Your task to perform on an android device: open app "Gmail" (install if not already installed) and enter user name: "undecidable@inbox.com" and password: "discouraging" Image 0: 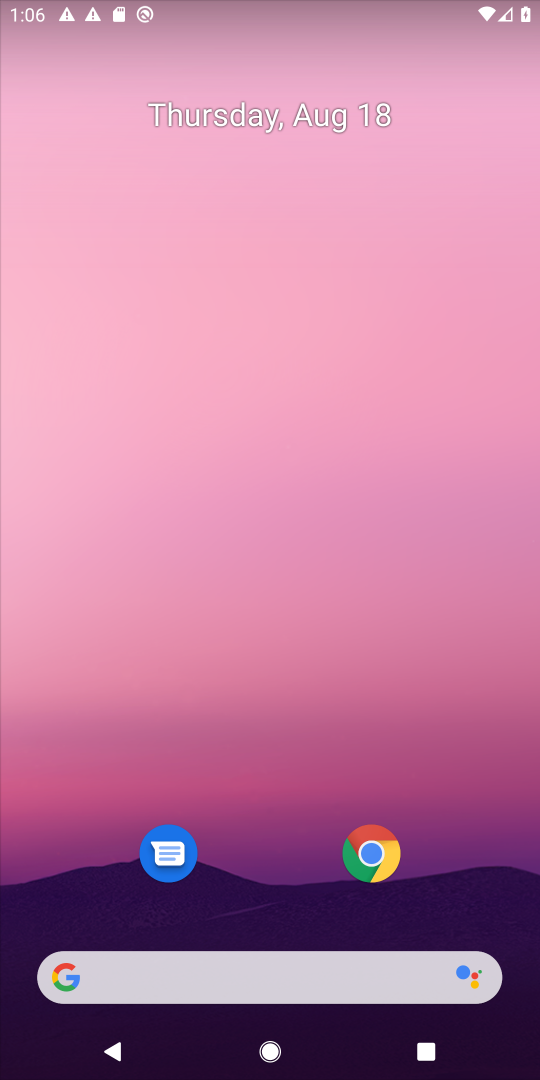
Step 0: drag from (261, 901) to (431, 135)
Your task to perform on an android device: open app "Gmail" (install if not already installed) and enter user name: "undecidable@inbox.com" and password: "discouraging" Image 1: 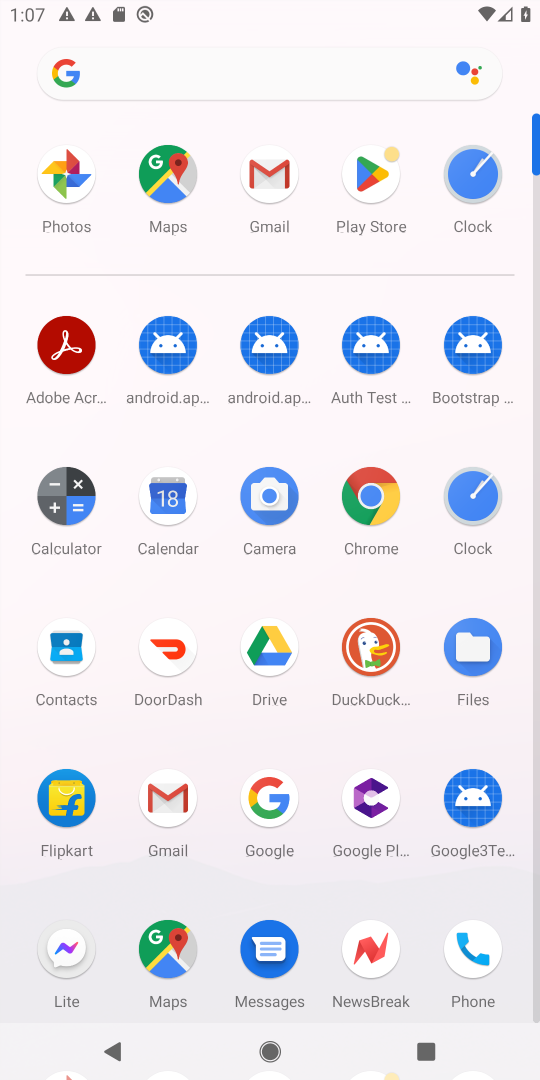
Step 1: click (153, 834)
Your task to perform on an android device: open app "Gmail" (install if not already installed) and enter user name: "undecidable@inbox.com" and password: "discouraging" Image 2: 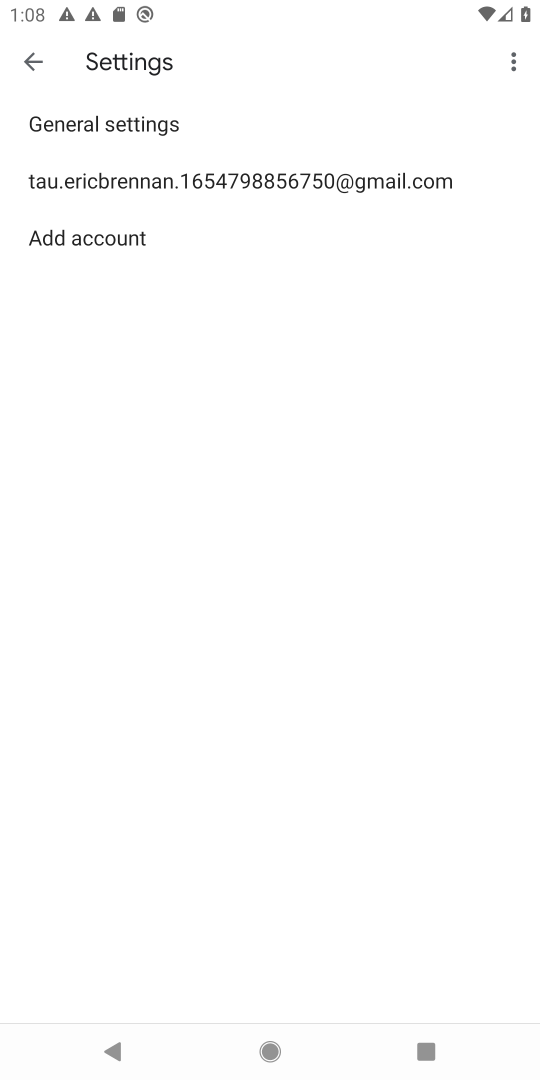
Step 2: click (33, 65)
Your task to perform on an android device: open app "Gmail" (install if not already installed) and enter user name: "undecidable@inbox.com" and password: "discouraging" Image 3: 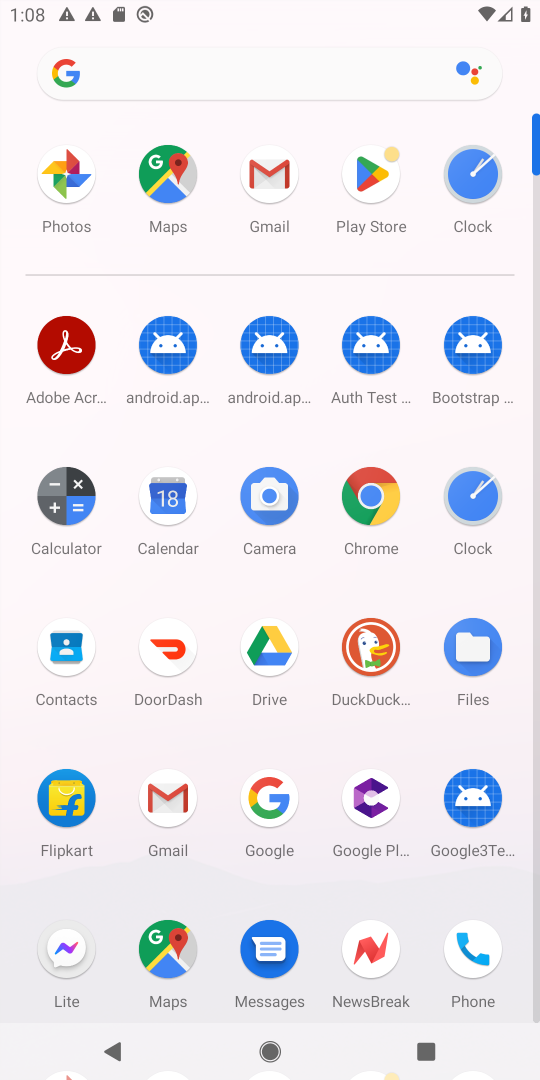
Step 3: click (379, 199)
Your task to perform on an android device: open app "Gmail" (install if not already installed) and enter user name: "undecidable@inbox.com" and password: "discouraging" Image 4: 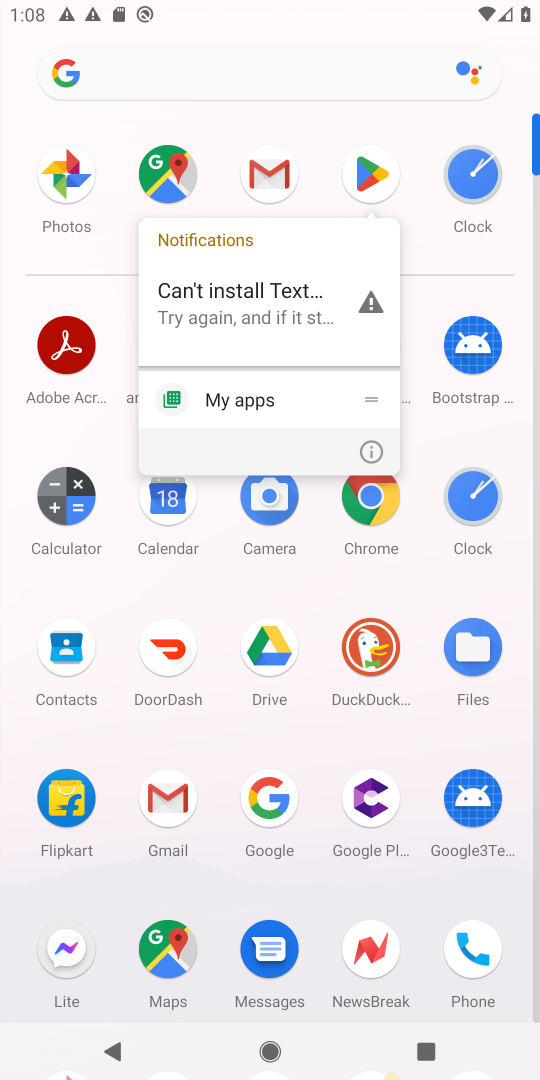
Step 4: click (376, 162)
Your task to perform on an android device: open app "Gmail" (install if not already installed) and enter user name: "undecidable@inbox.com" and password: "discouraging" Image 5: 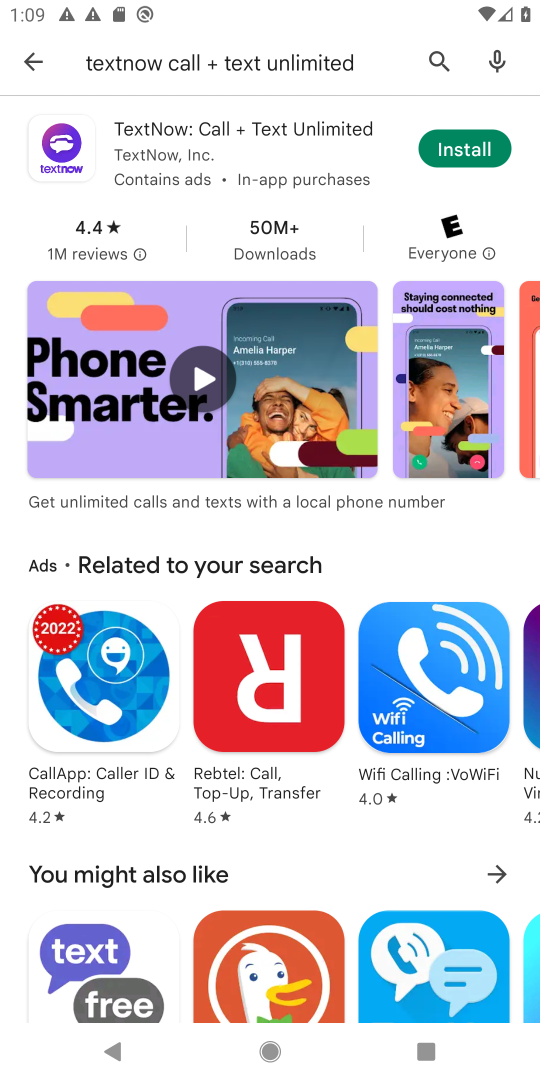
Step 5: press home button
Your task to perform on an android device: open app "Gmail" (install if not already installed) and enter user name: "undecidable@inbox.com" and password: "discouraging" Image 6: 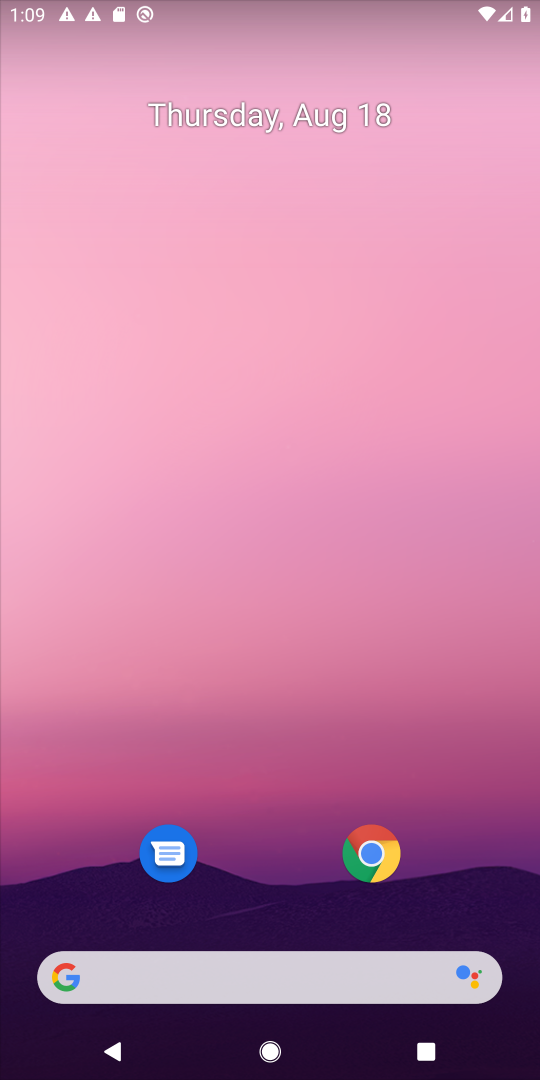
Step 6: drag from (316, 871) to (412, 2)
Your task to perform on an android device: open app "Gmail" (install if not already installed) and enter user name: "undecidable@inbox.com" and password: "discouraging" Image 7: 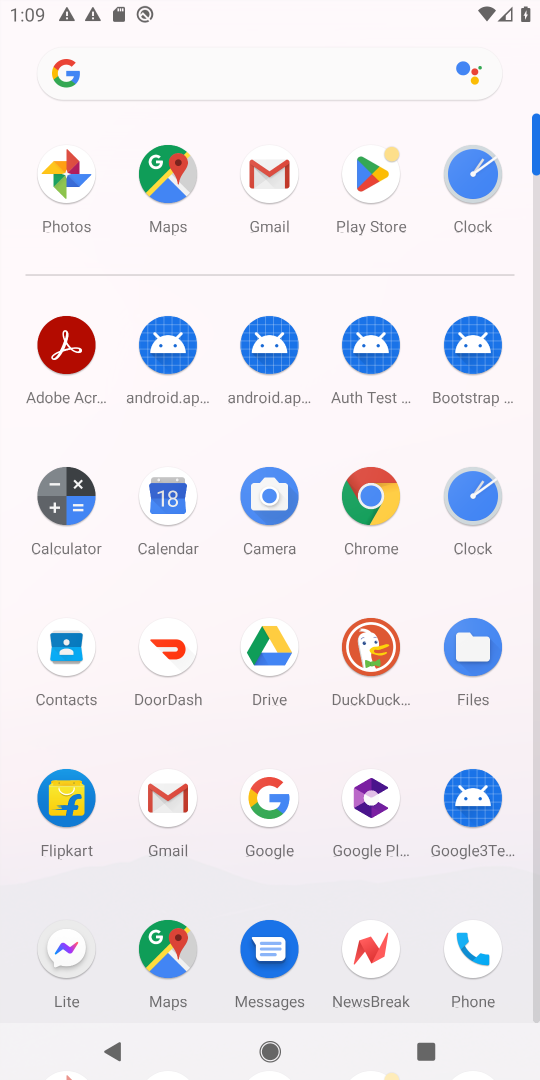
Step 7: click (192, 814)
Your task to perform on an android device: open app "Gmail" (install if not already installed) and enter user name: "undecidable@inbox.com" and password: "discouraging" Image 8: 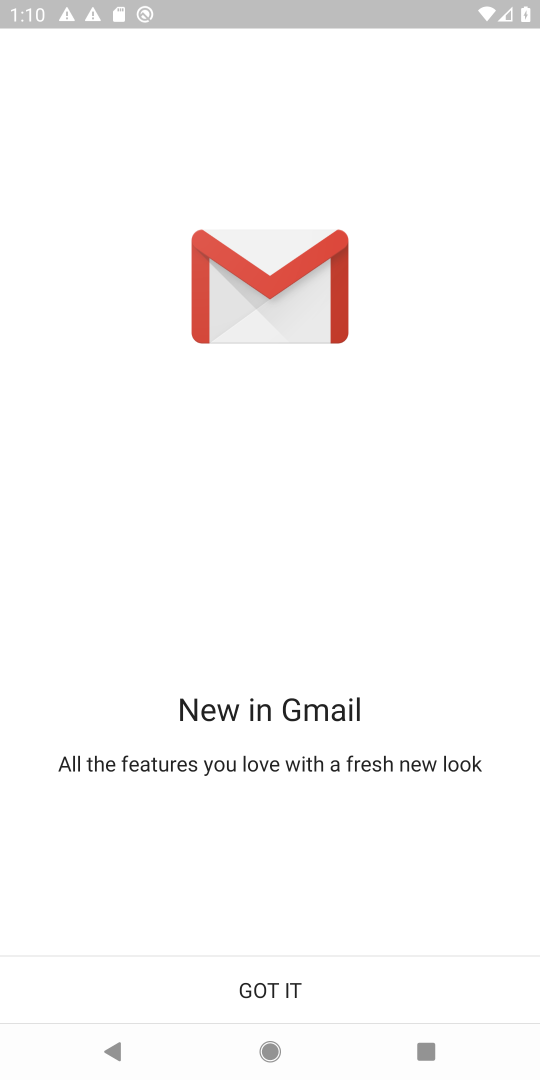
Step 8: click (291, 991)
Your task to perform on an android device: open app "Gmail" (install if not already installed) and enter user name: "undecidable@inbox.com" and password: "discouraging" Image 9: 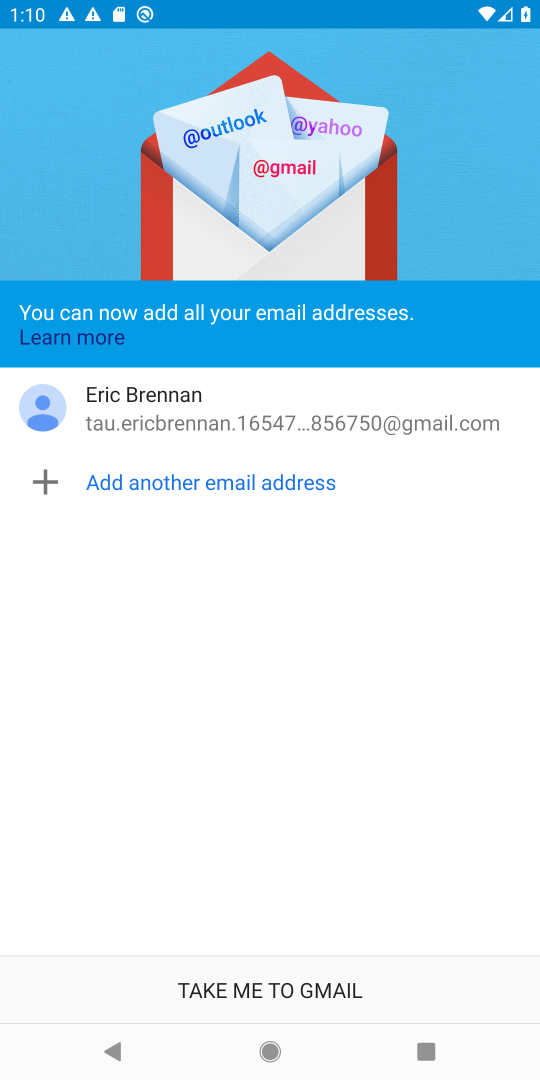
Step 9: task complete